Your task to perform on an android device: turn smart compose on in the gmail app Image 0: 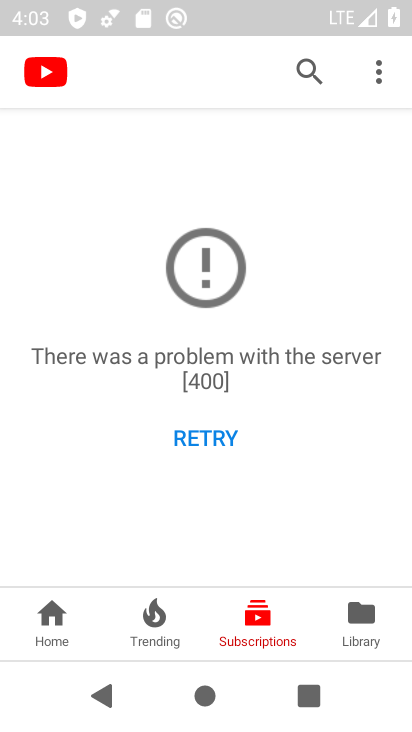
Step 0: press home button
Your task to perform on an android device: turn smart compose on in the gmail app Image 1: 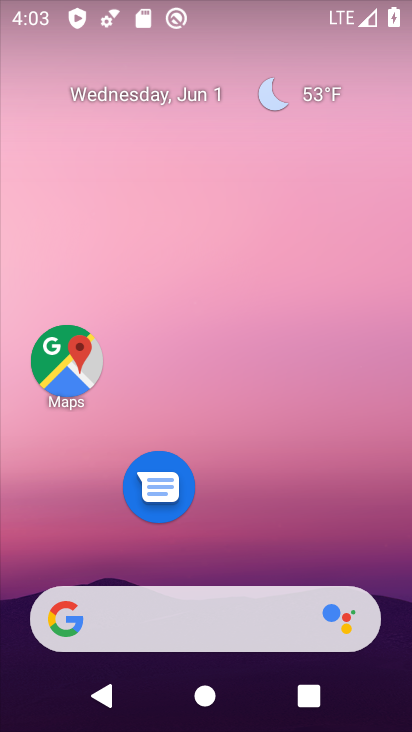
Step 1: drag from (237, 572) to (290, 80)
Your task to perform on an android device: turn smart compose on in the gmail app Image 2: 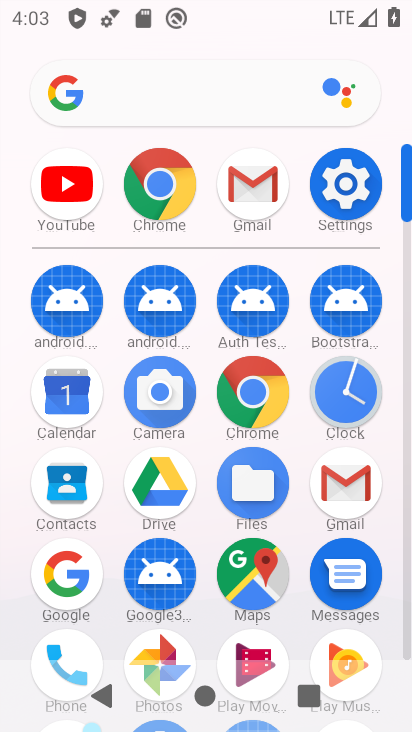
Step 2: click (339, 495)
Your task to perform on an android device: turn smart compose on in the gmail app Image 3: 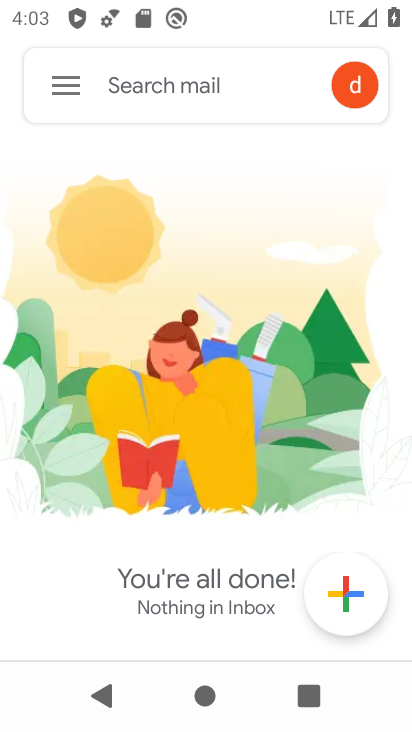
Step 3: click (62, 89)
Your task to perform on an android device: turn smart compose on in the gmail app Image 4: 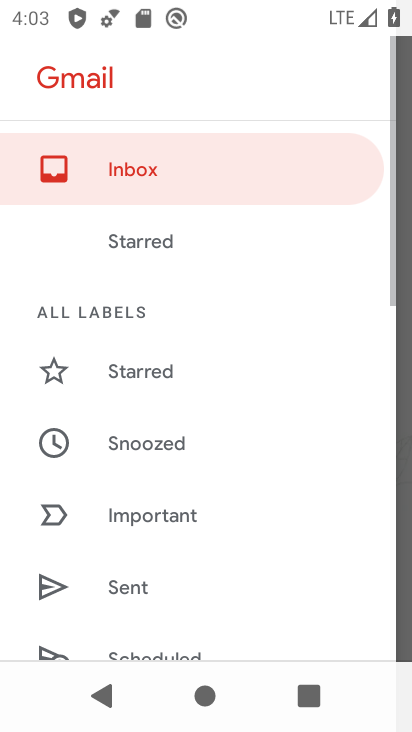
Step 4: drag from (159, 539) to (215, 222)
Your task to perform on an android device: turn smart compose on in the gmail app Image 5: 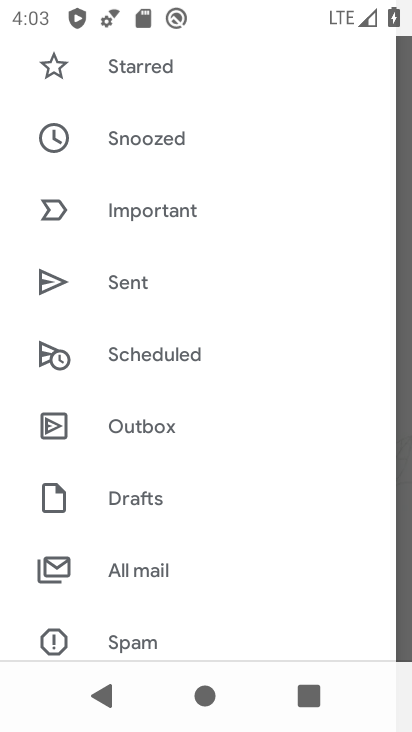
Step 5: drag from (165, 584) to (205, 365)
Your task to perform on an android device: turn smart compose on in the gmail app Image 6: 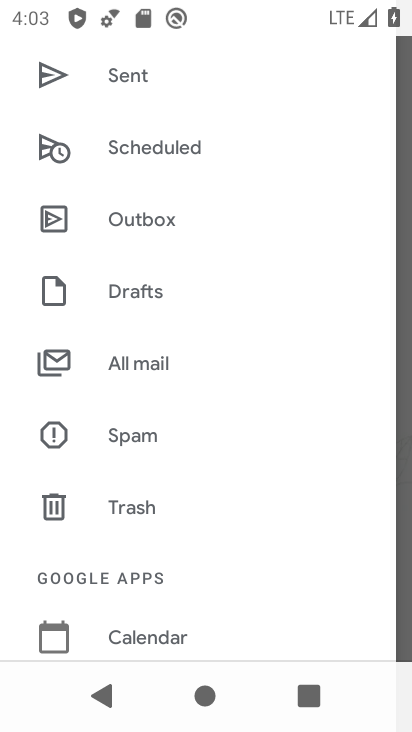
Step 6: drag from (154, 540) to (230, 3)
Your task to perform on an android device: turn smart compose on in the gmail app Image 7: 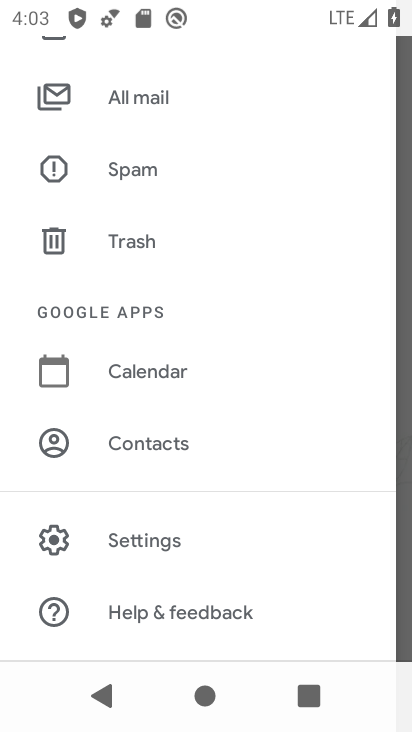
Step 7: click (164, 555)
Your task to perform on an android device: turn smart compose on in the gmail app Image 8: 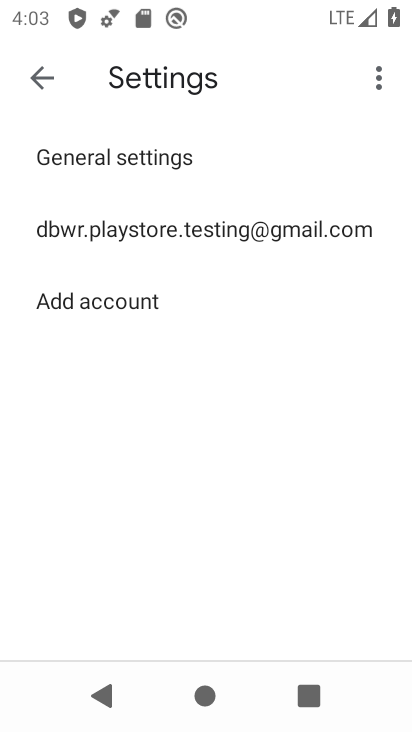
Step 8: click (180, 235)
Your task to perform on an android device: turn smart compose on in the gmail app Image 9: 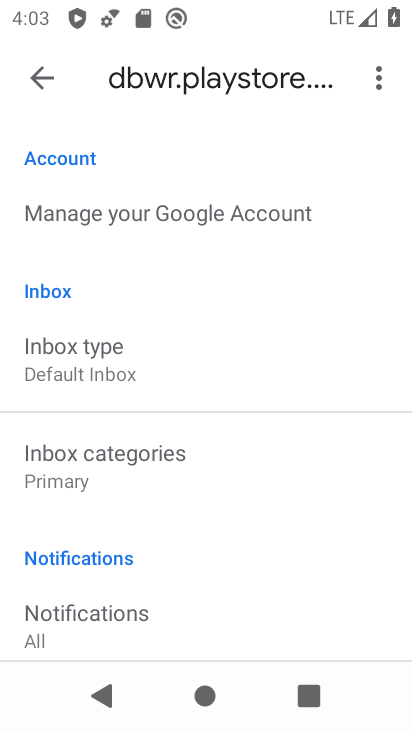
Step 9: task complete